Your task to perform on an android device: open app "LiveIn - Share Your Moment" Image 0: 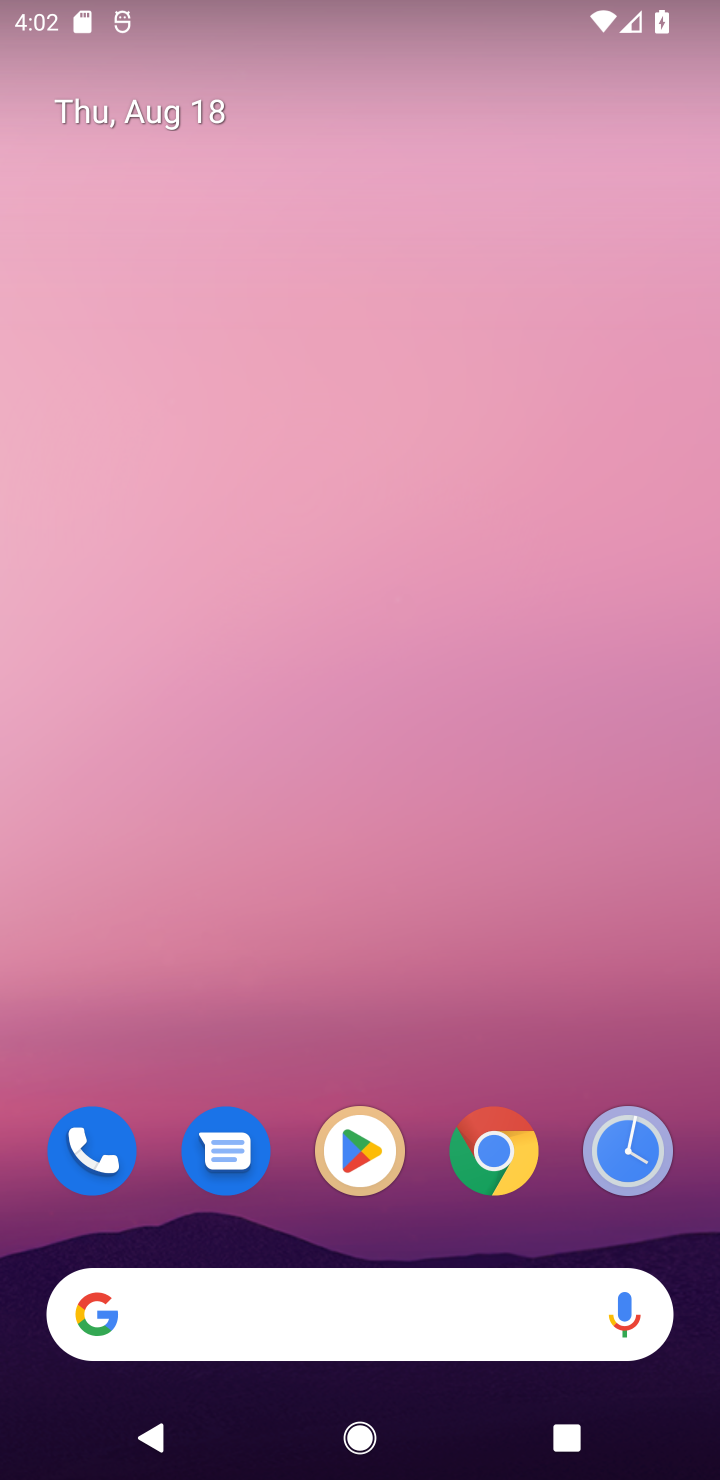
Step 0: click (375, 1179)
Your task to perform on an android device: open app "LiveIn - Share Your Moment" Image 1: 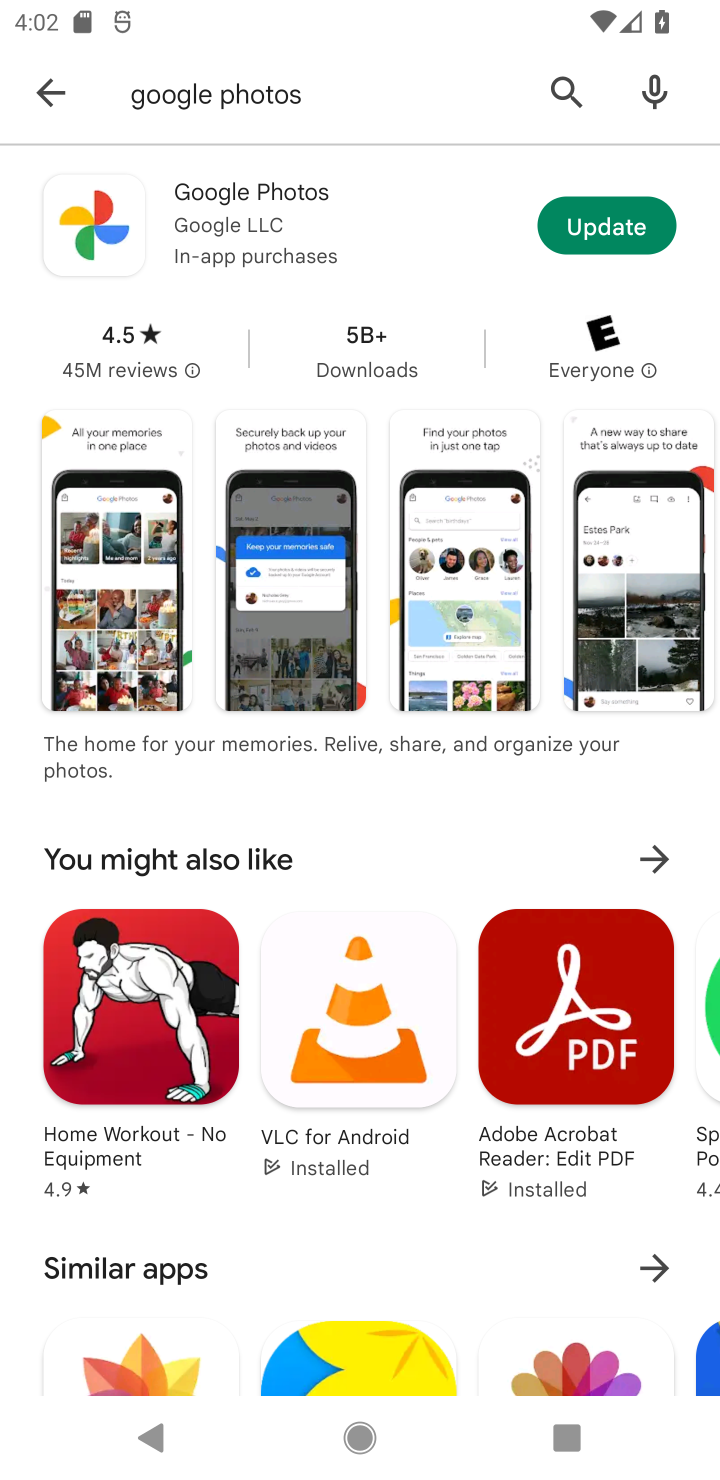
Step 1: click (570, 79)
Your task to perform on an android device: open app "LiveIn - Share Your Moment" Image 2: 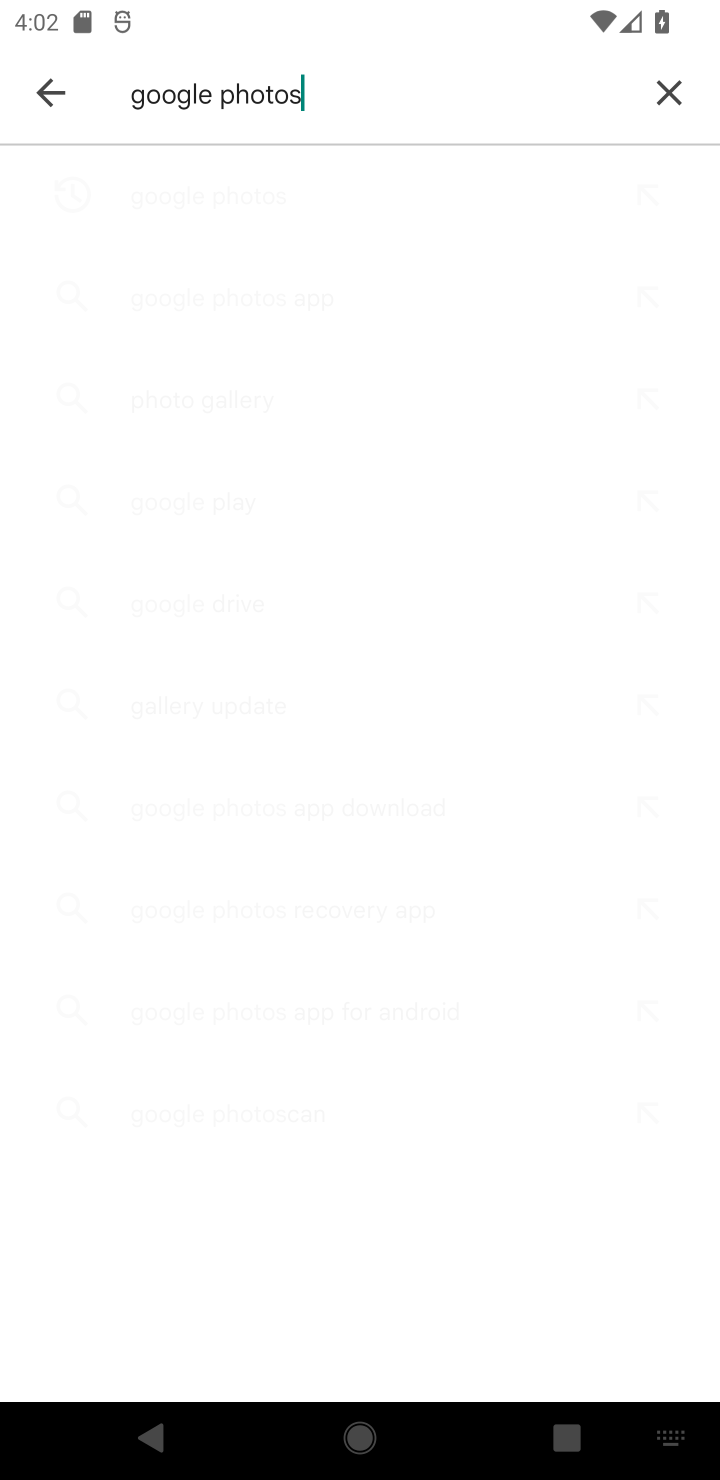
Step 2: click (677, 103)
Your task to perform on an android device: open app "LiveIn - Share Your Moment" Image 3: 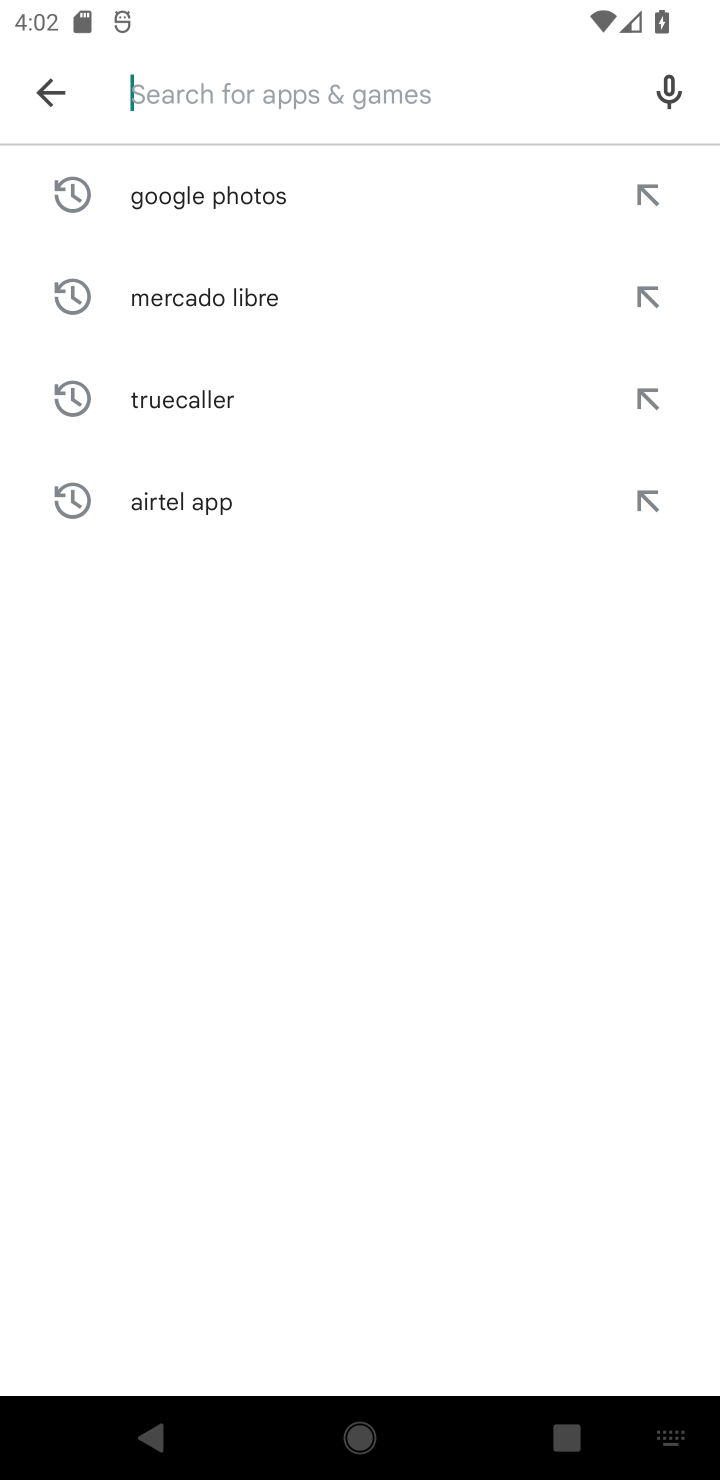
Step 3: type "LVIN"
Your task to perform on an android device: open app "LiveIn - Share Your Moment" Image 4: 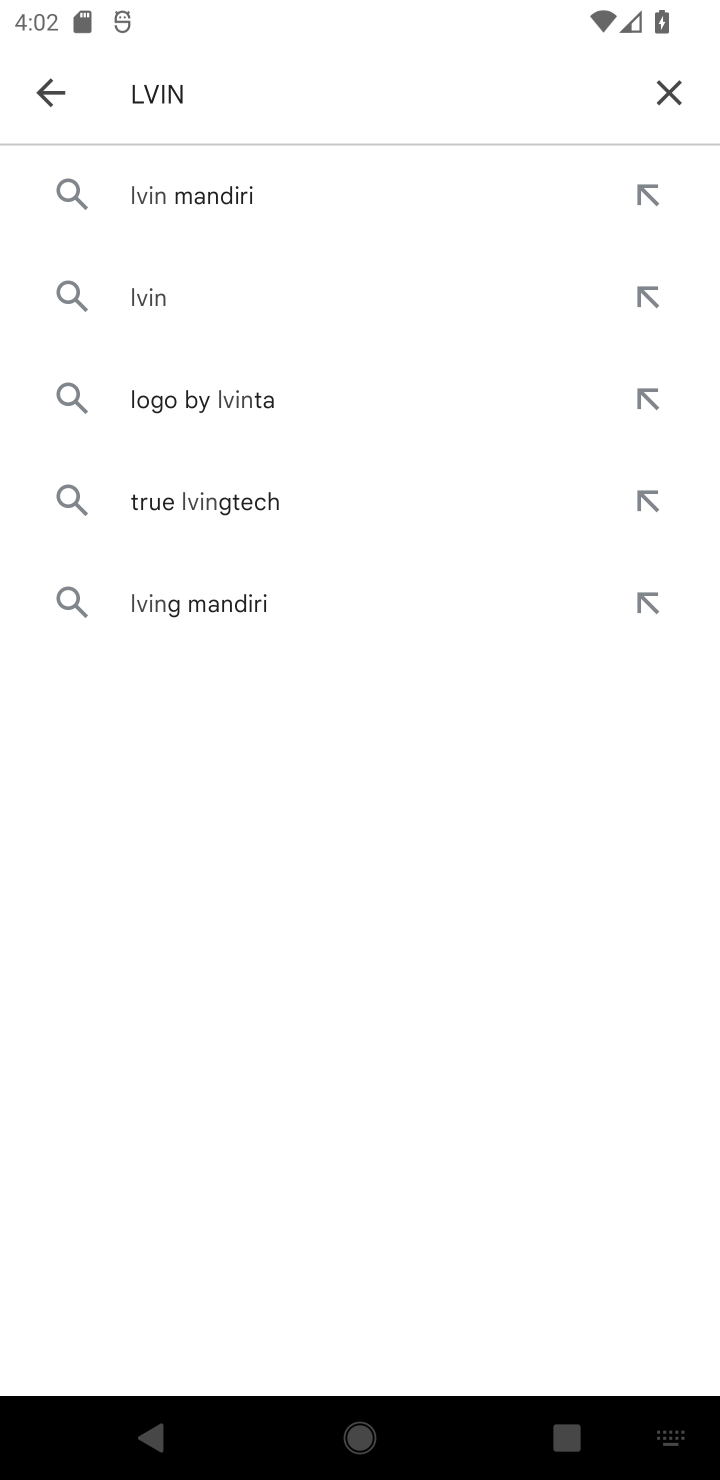
Step 4: click (210, 223)
Your task to perform on an android device: open app "LiveIn - Share Your Moment" Image 5: 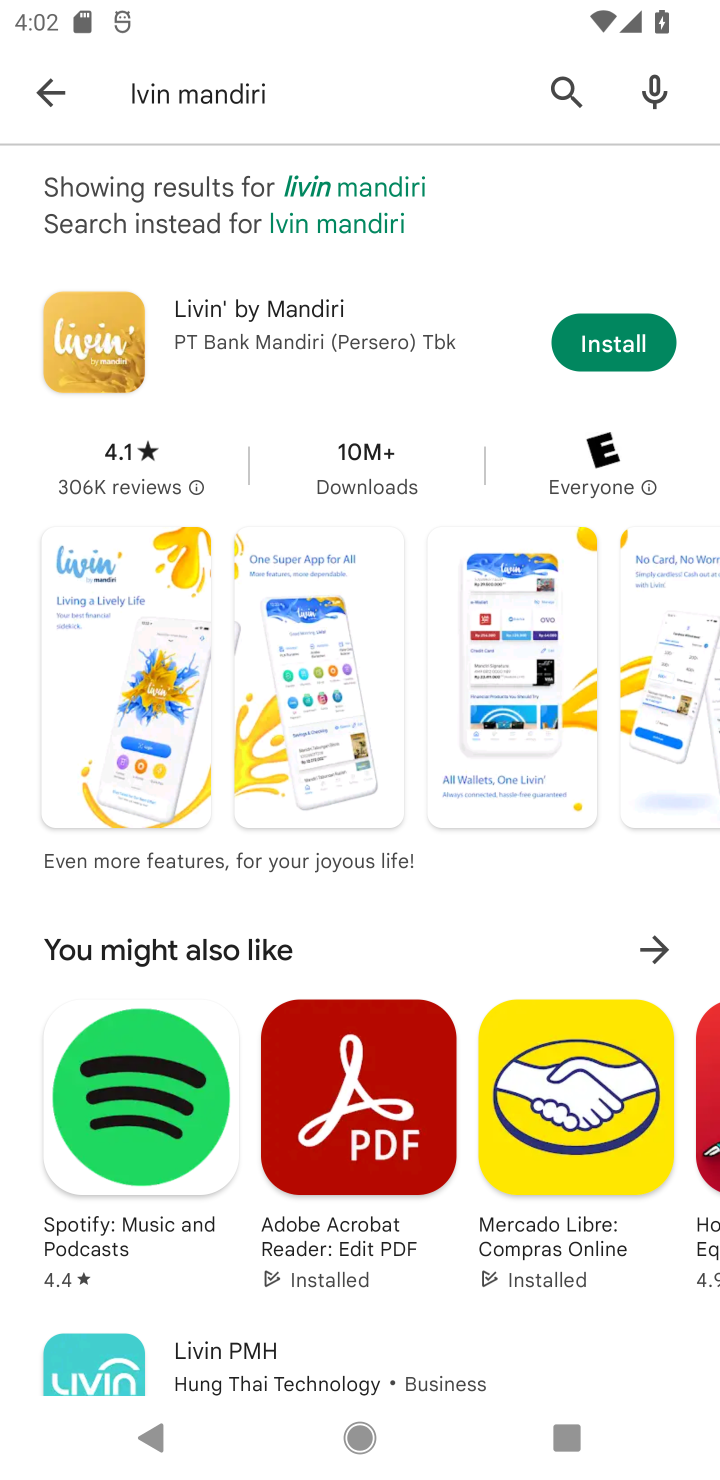
Step 5: click (547, 110)
Your task to perform on an android device: open app "LiveIn - Share Your Moment" Image 6: 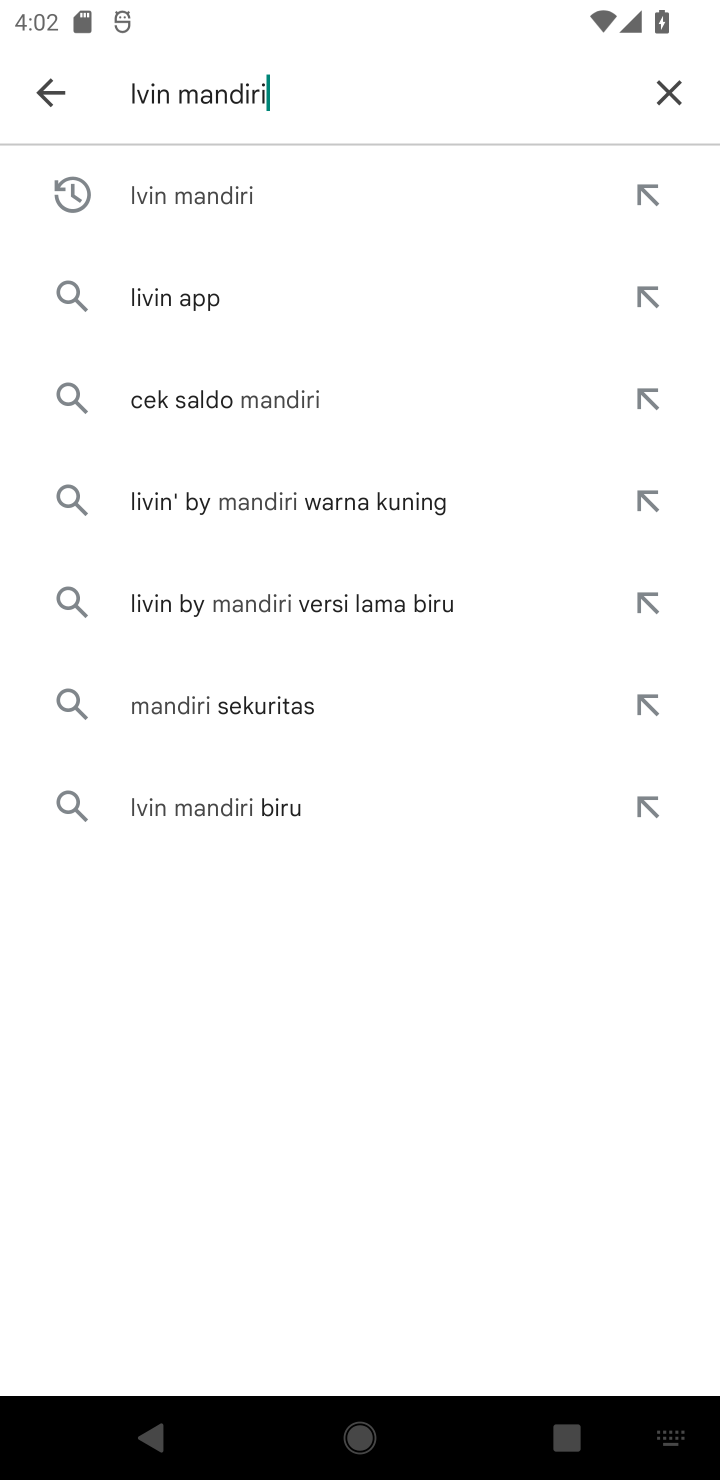
Step 6: click (674, 104)
Your task to perform on an android device: open app "LiveIn - Share Your Moment" Image 7: 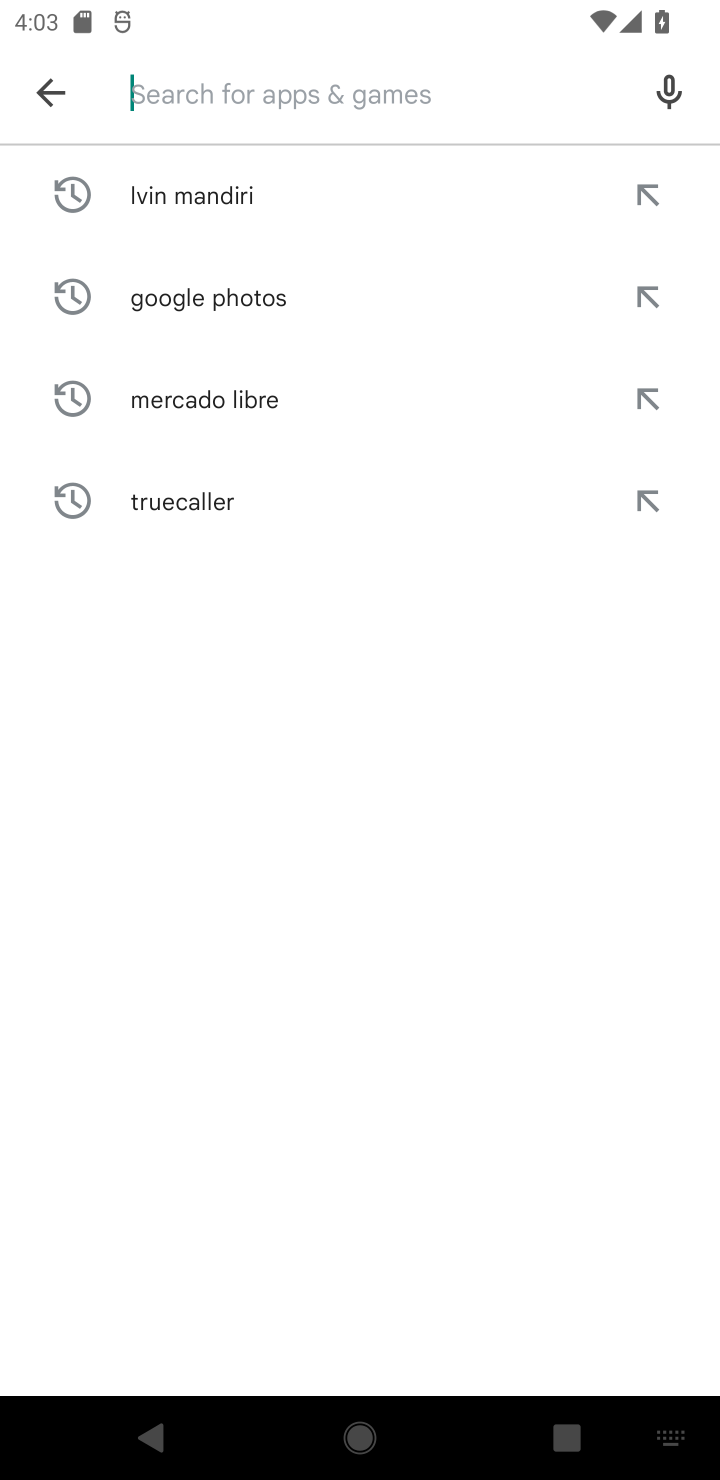
Step 7: type "LIVEIN"
Your task to perform on an android device: open app "LiveIn - Share Your Moment" Image 8: 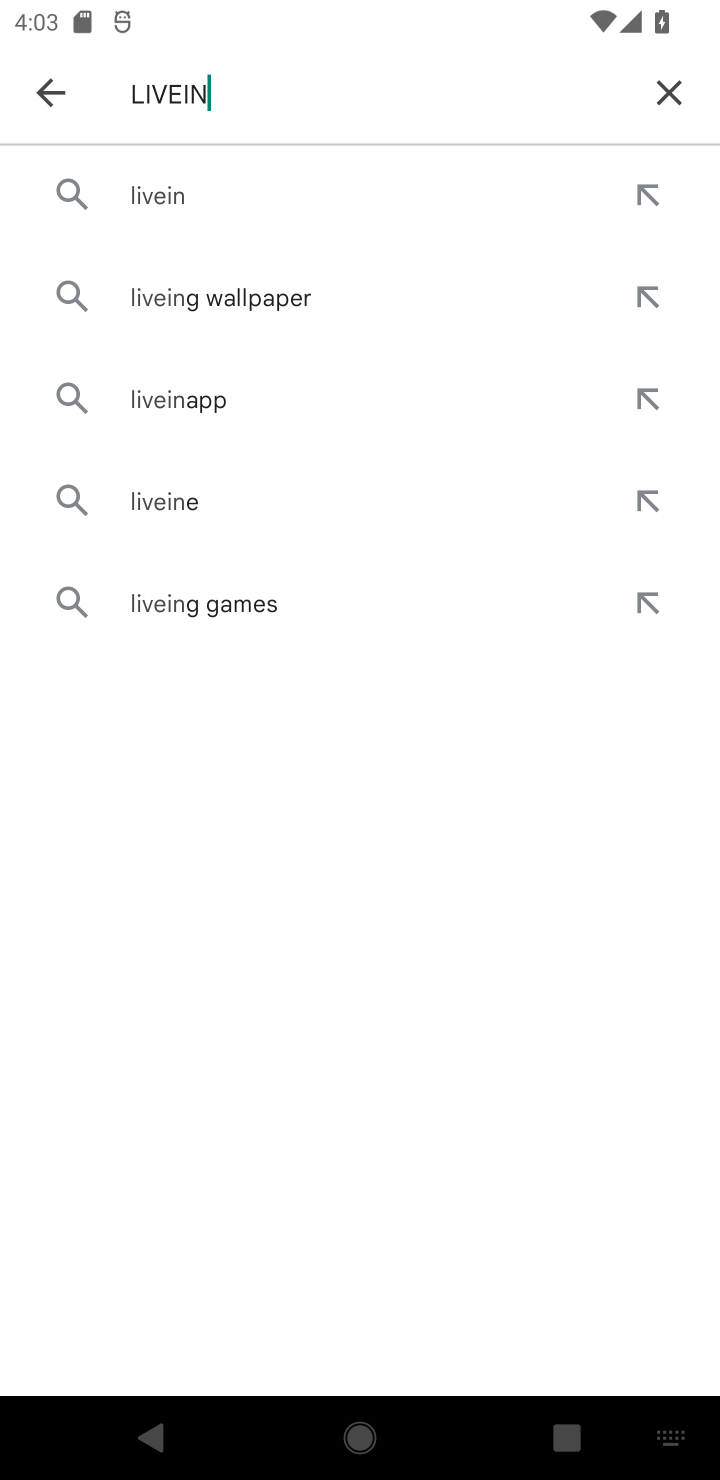
Step 8: click (254, 209)
Your task to perform on an android device: open app "LiveIn - Share Your Moment" Image 9: 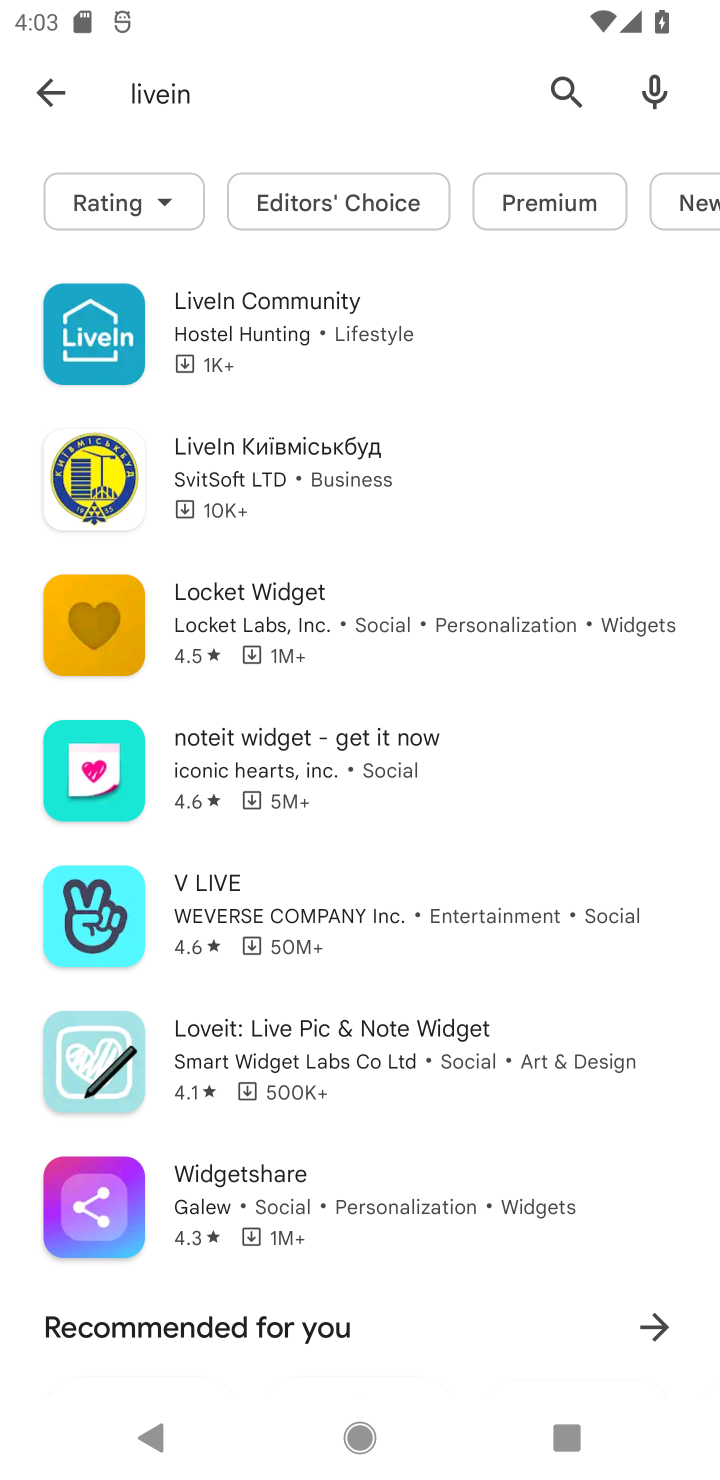
Step 9: click (302, 373)
Your task to perform on an android device: open app "LiveIn - Share Your Moment" Image 10: 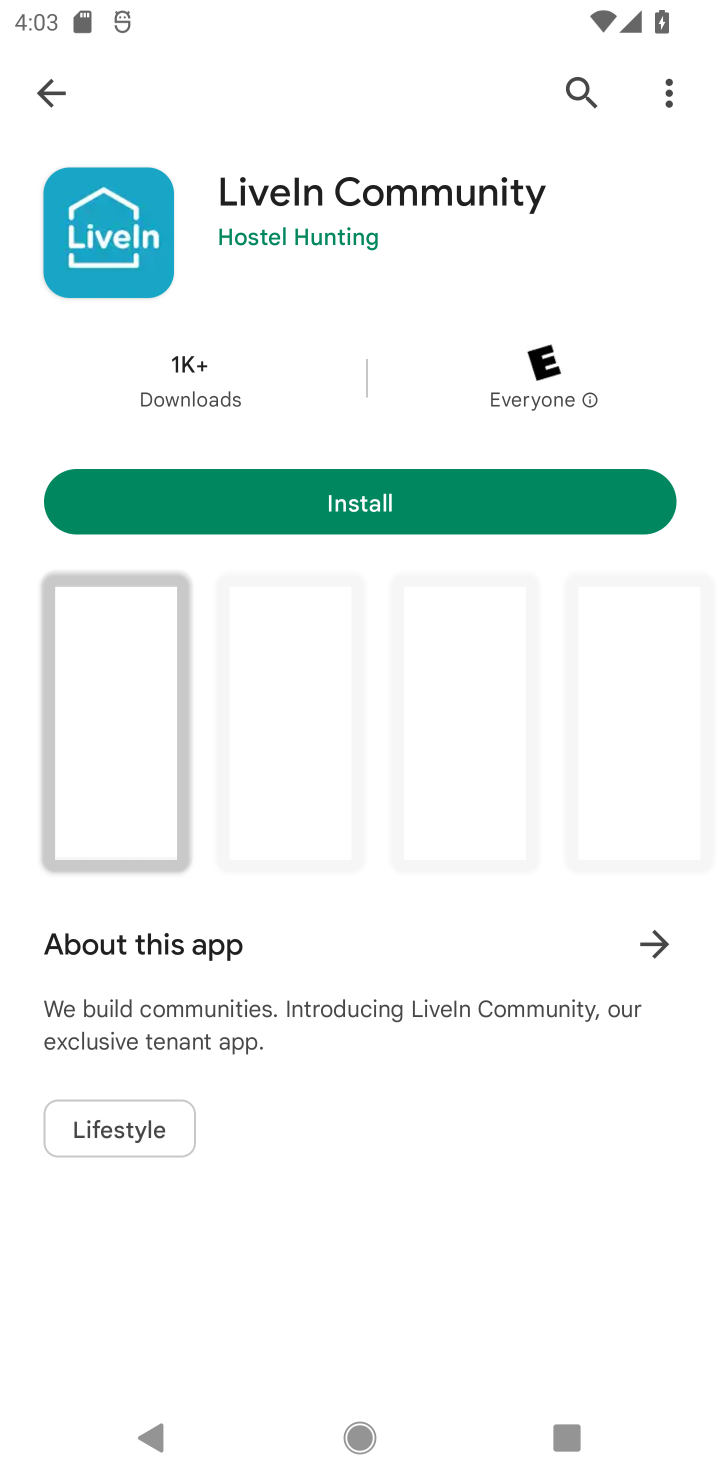
Step 10: task complete